Your task to perform on an android device: Show me popular games on the Play Store Image 0: 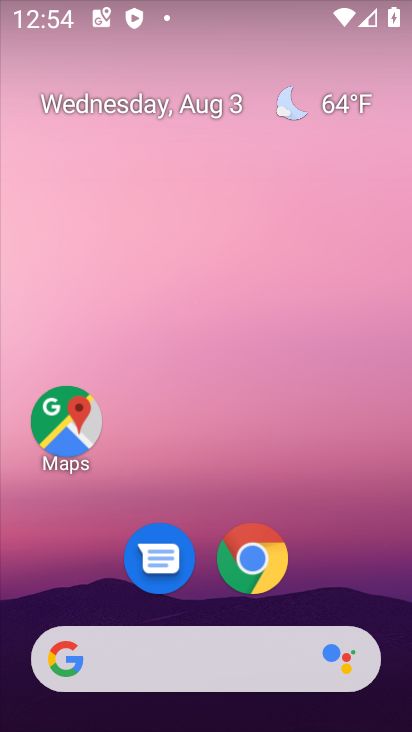
Step 0: drag from (363, 586) to (293, 142)
Your task to perform on an android device: Show me popular games on the Play Store Image 1: 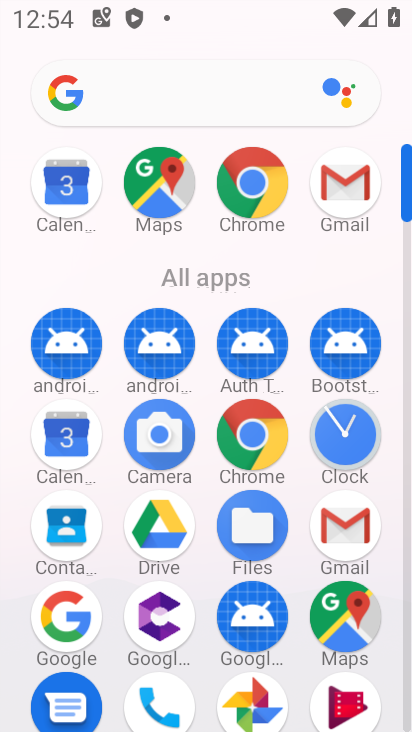
Step 1: click (306, 663)
Your task to perform on an android device: Show me popular games on the Play Store Image 2: 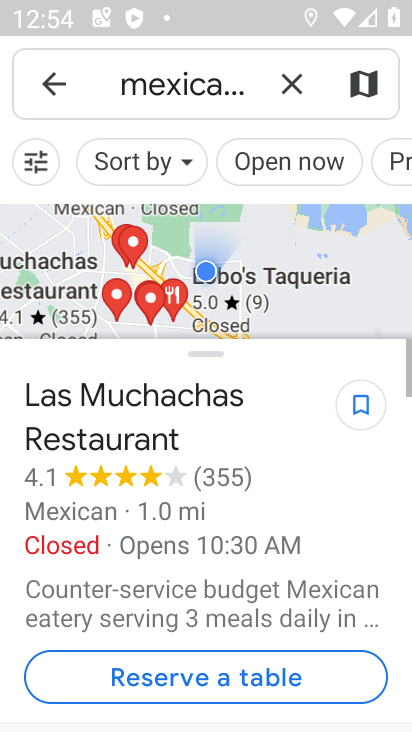
Step 2: press home button
Your task to perform on an android device: Show me popular games on the Play Store Image 3: 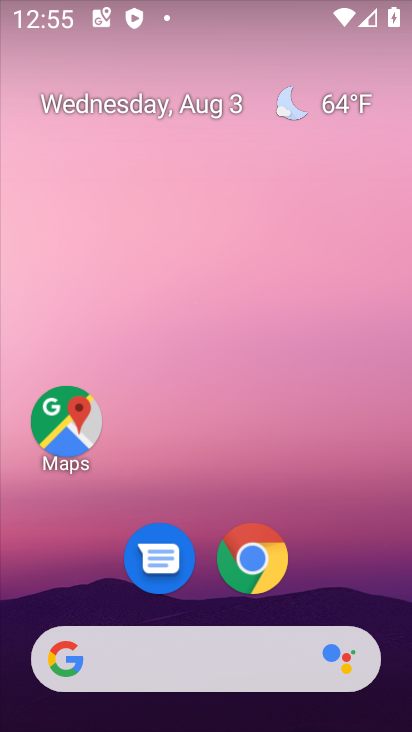
Step 3: drag from (387, 596) to (327, 195)
Your task to perform on an android device: Show me popular games on the Play Store Image 4: 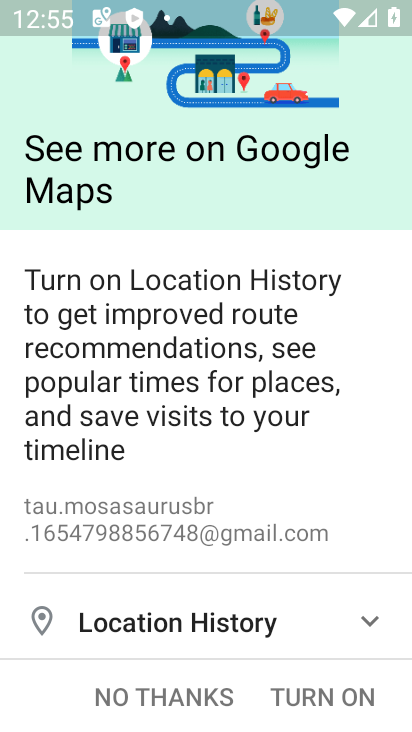
Step 4: press back button
Your task to perform on an android device: Show me popular games on the Play Store Image 5: 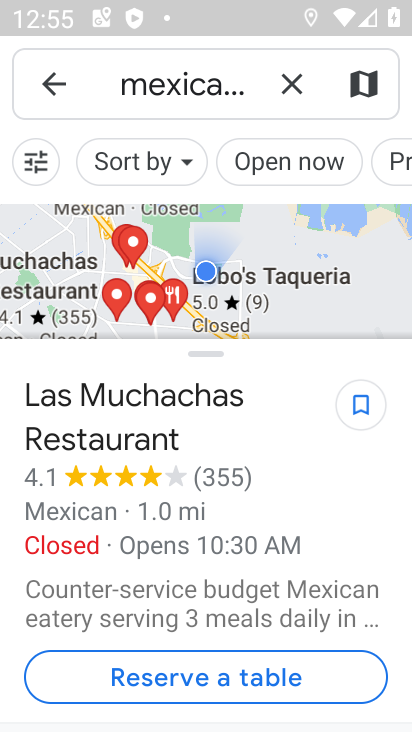
Step 5: press home button
Your task to perform on an android device: Show me popular games on the Play Store Image 6: 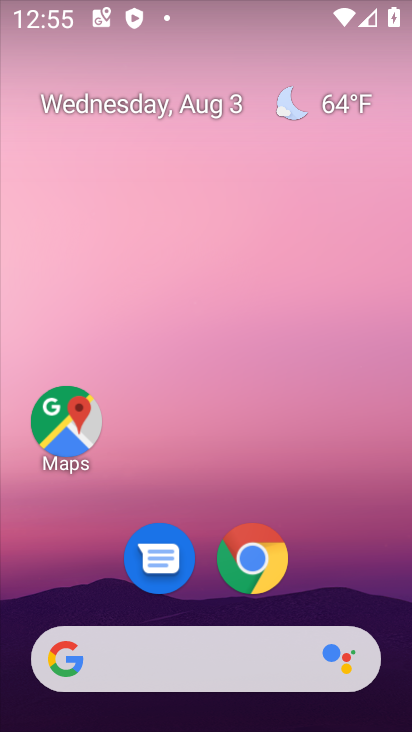
Step 6: drag from (372, 569) to (316, 221)
Your task to perform on an android device: Show me popular games on the Play Store Image 7: 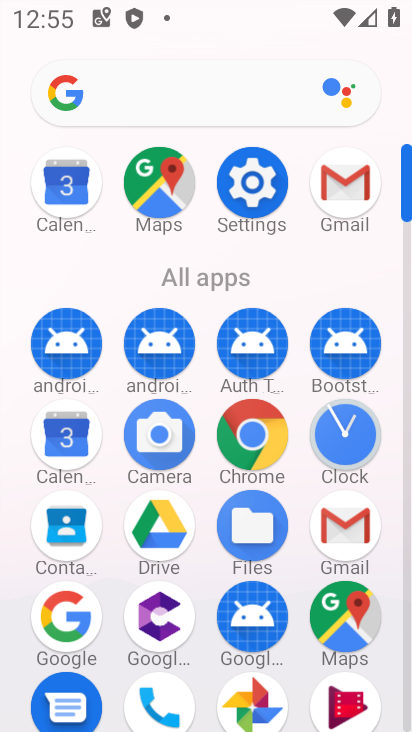
Step 7: drag from (296, 273) to (262, 93)
Your task to perform on an android device: Show me popular games on the Play Store Image 8: 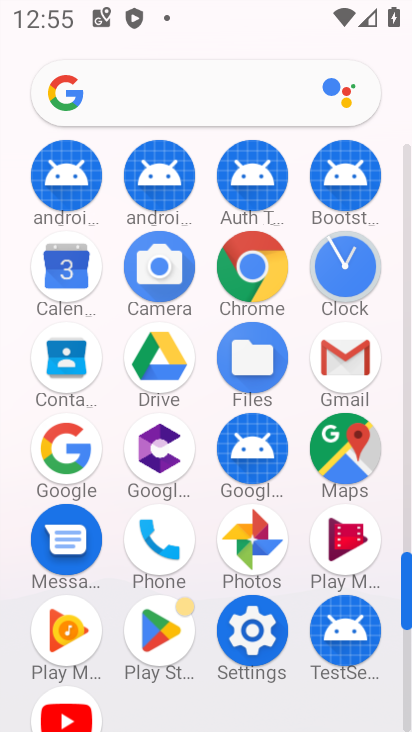
Step 8: click (157, 625)
Your task to perform on an android device: Show me popular games on the Play Store Image 9: 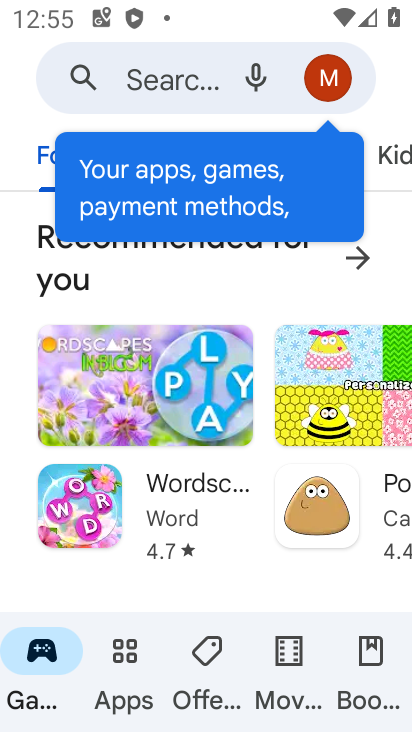
Step 9: drag from (357, 485) to (334, 543)
Your task to perform on an android device: Show me popular games on the Play Store Image 10: 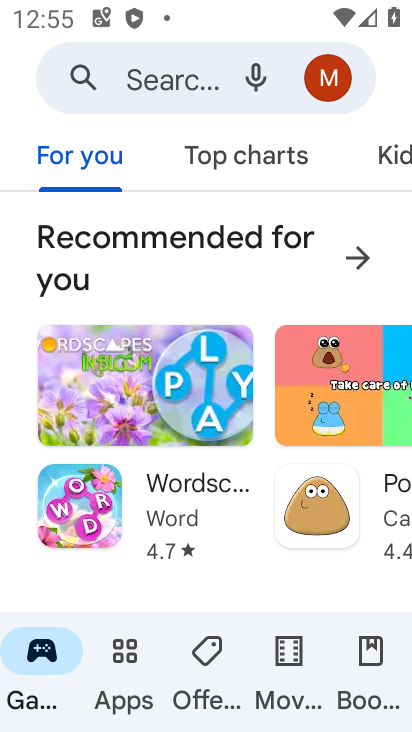
Step 10: click (235, 152)
Your task to perform on an android device: Show me popular games on the Play Store Image 11: 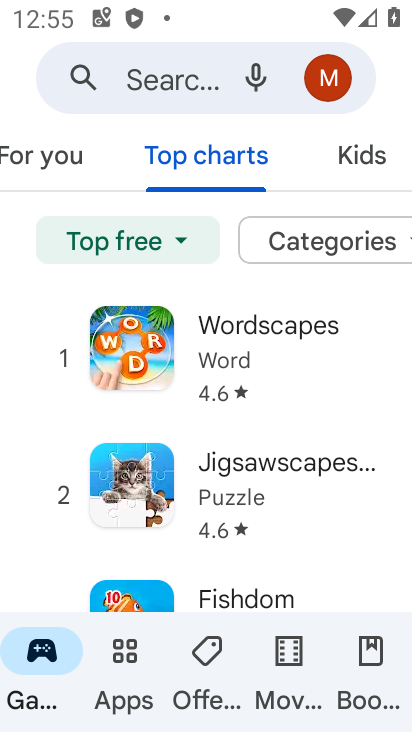
Step 11: task complete